Your task to perform on an android device: Open Google Maps and go to "Timeline" Image 0: 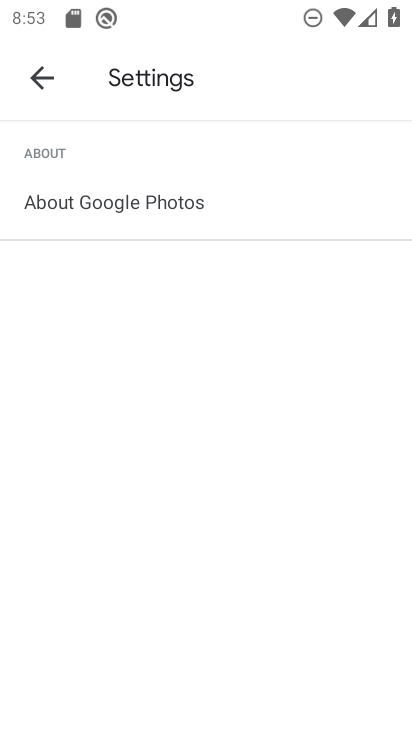
Step 0: press home button
Your task to perform on an android device: Open Google Maps and go to "Timeline" Image 1: 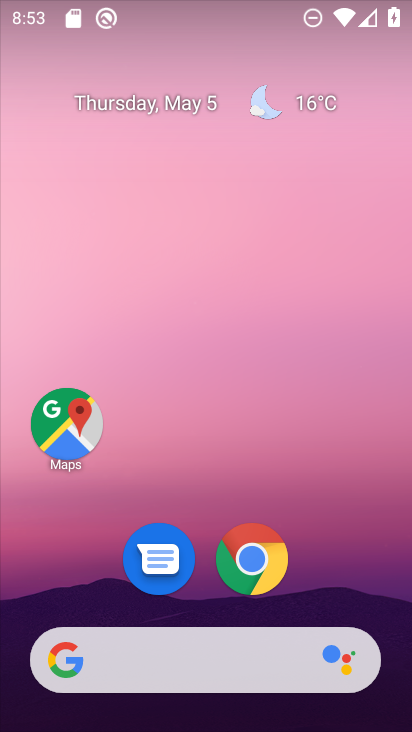
Step 1: click (61, 428)
Your task to perform on an android device: Open Google Maps and go to "Timeline" Image 2: 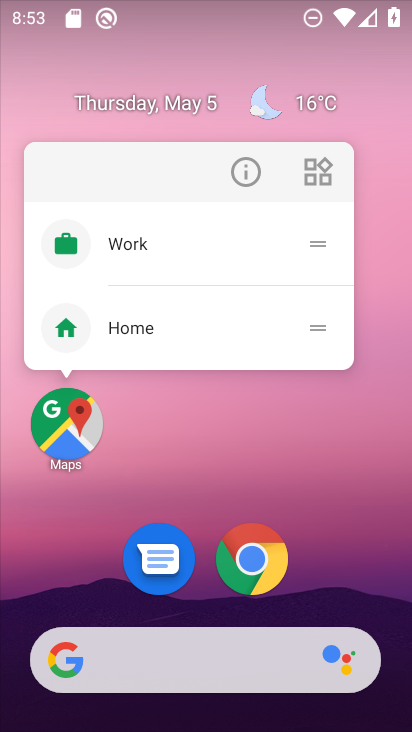
Step 2: click (61, 428)
Your task to perform on an android device: Open Google Maps and go to "Timeline" Image 3: 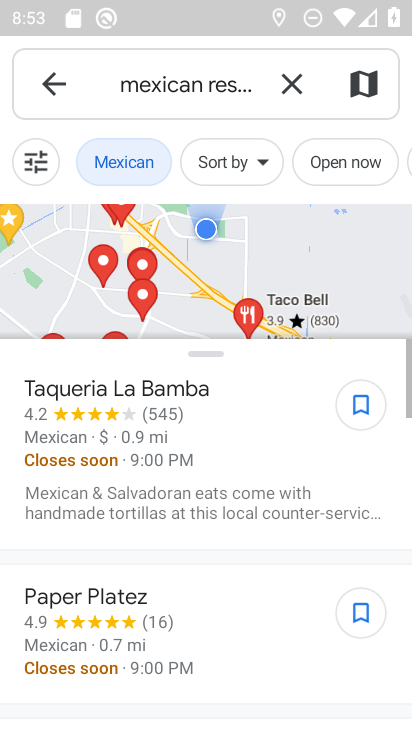
Step 3: click (294, 86)
Your task to perform on an android device: Open Google Maps and go to "Timeline" Image 4: 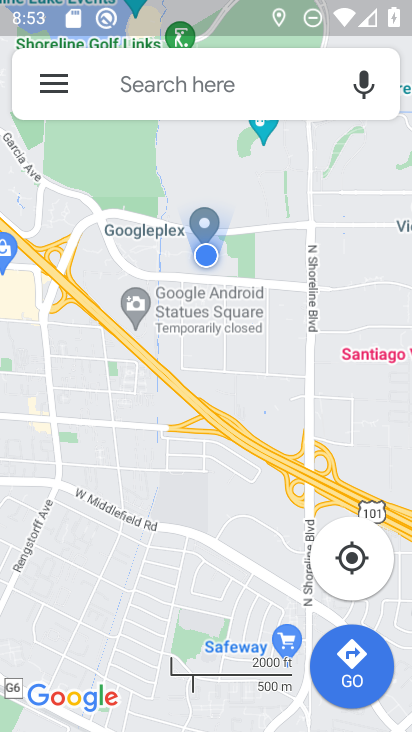
Step 4: click (58, 84)
Your task to perform on an android device: Open Google Maps and go to "Timeline" Image 5: 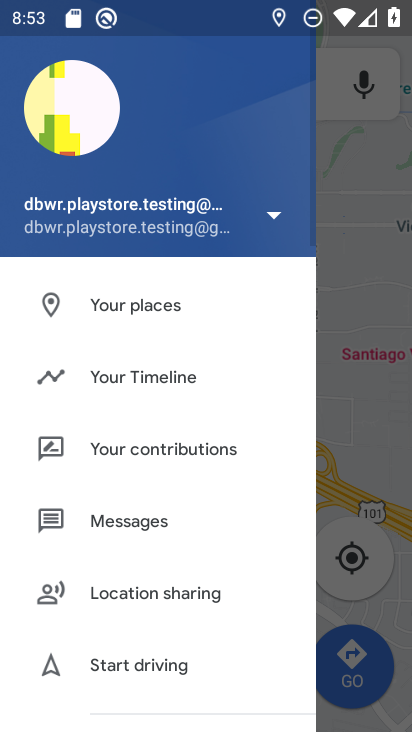
Step 5: click (144, 372)
Your task to perform on an android device: Open Google Maps and go to "Timeline" Image 6: 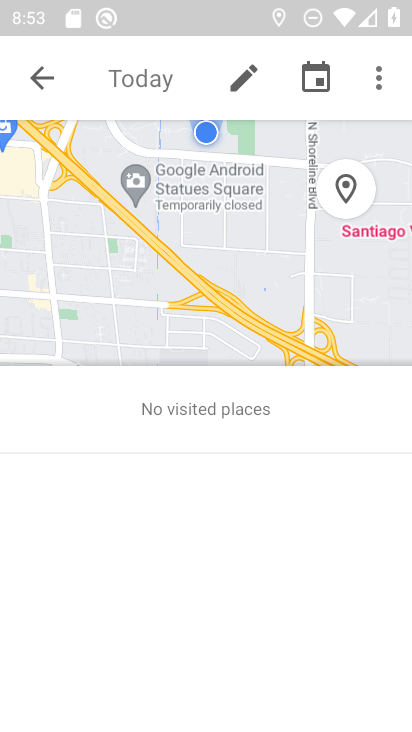
Step 6: task complete